Your task to perform on an android device: manage bookmarks in the chrome app Image 0: 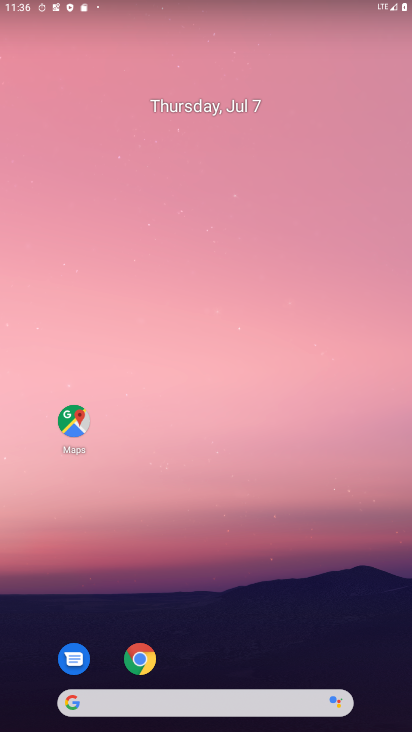
Step 0: press home button
Your task to perform on an android device: manage bookmarks in the chrome app Image 1: 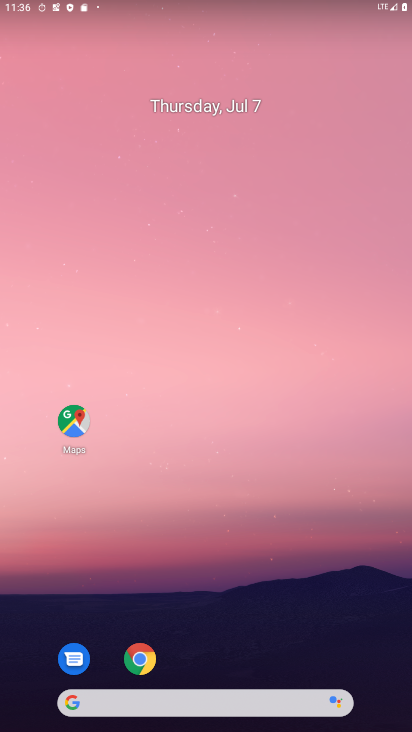
Step 1: click (137, 648)
Your task to perform on an android device: manage bookmarks in the chrome app Image 2: 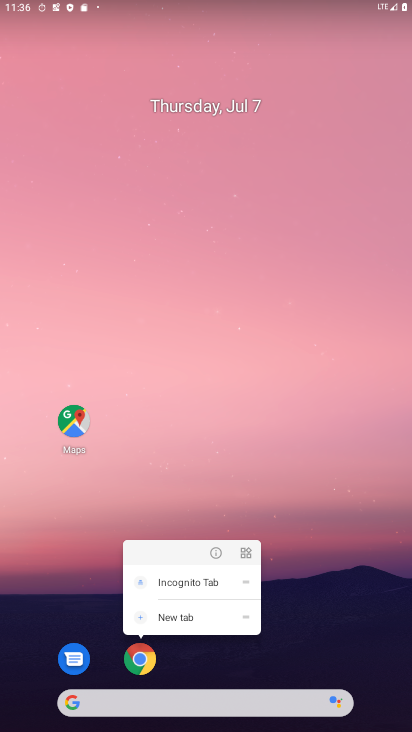
Step 2: click (135, 657)
Your task to perform on an android device: manage bookmarks in the chrome app Image 3: 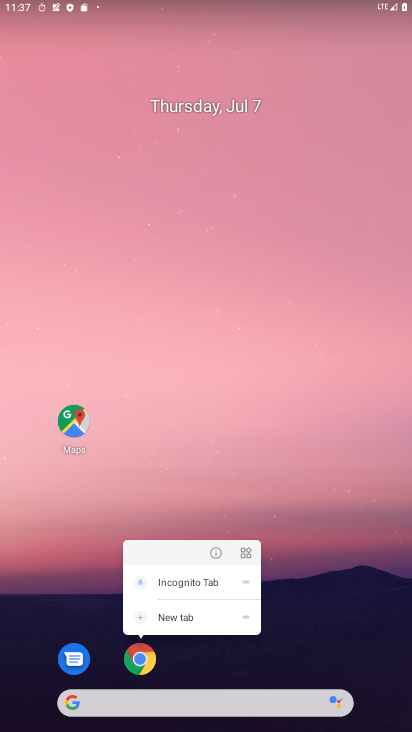
Step 3: click (139, 658)
Your task to perform on an android device: manage bookmarks in the chrome app Image 4: 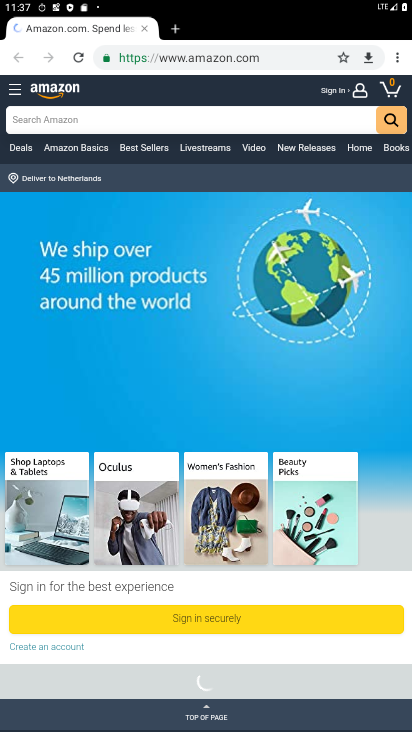
Step 4: click (400, 57)
Your task to perform on an android device: manage bookmarks in the chrome app Image 5: 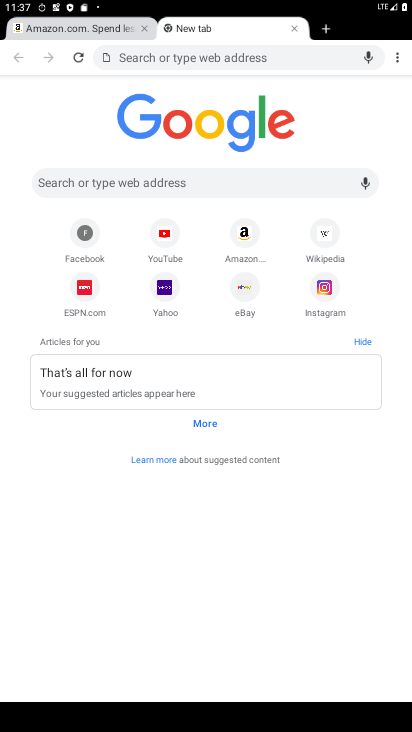
Step 5: click (390, 63)
Your task to perform on an android device: manage bookmarks in the chrome app Image 6: 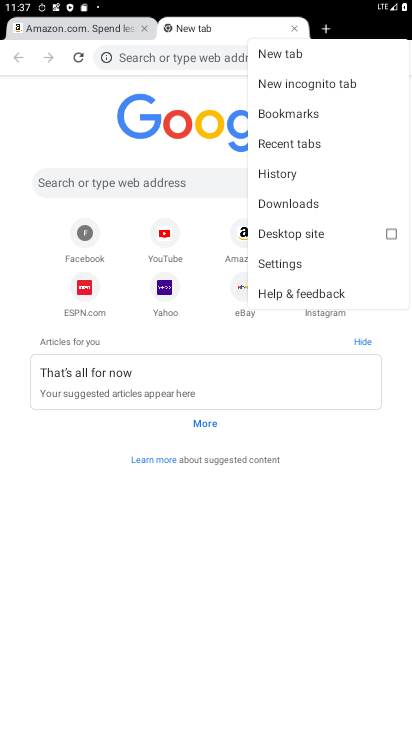
Step 6: click (305, 111)
Your task to perform on an android device: manage bookmarks in the chrome app Image 7: 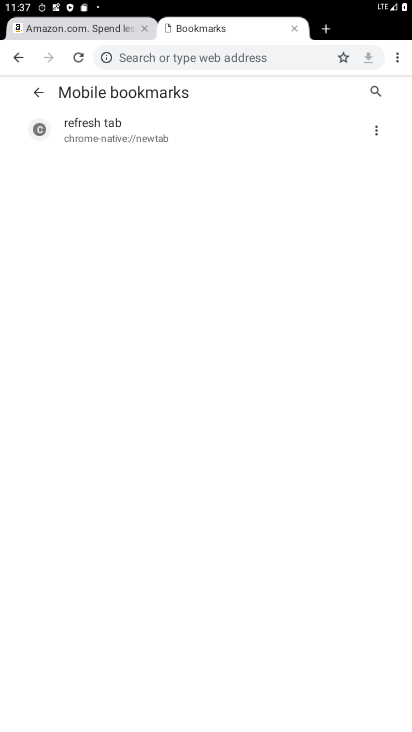
Step 7: task complete